Your task to perform on an android device: find snoozed emails in the gmail app Image 0: 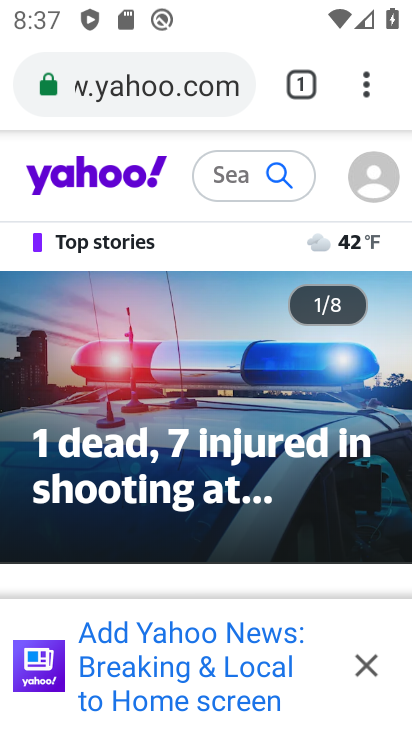
Step 0: press home button
Your task to perform on an android device: find snoozed emails in the gmail app Image 1: 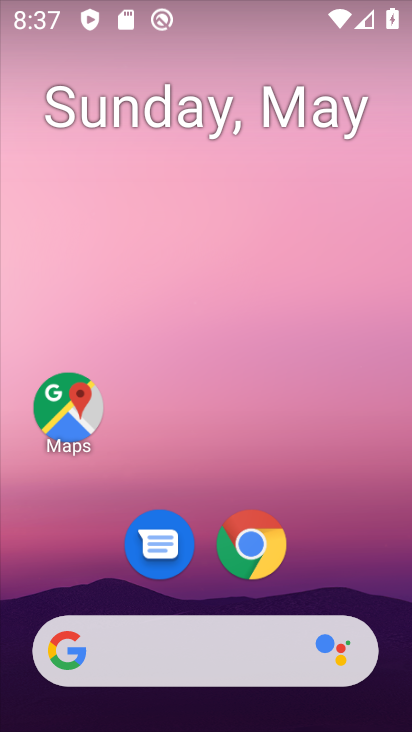
Step 1: drag from (384, 521) to (405, 27)
Your task to perform on an android device: find snoozed emails in the gmail app Image 2: 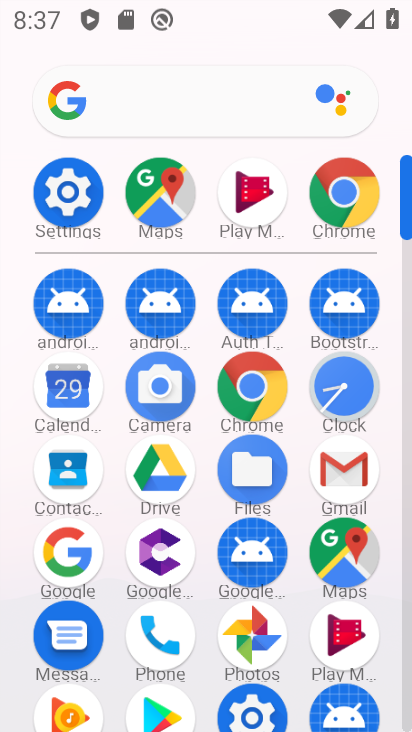
Step 2: click (340, 483)
Your task to perform on an android device: find snoozed emails in the gmail app Image 3: 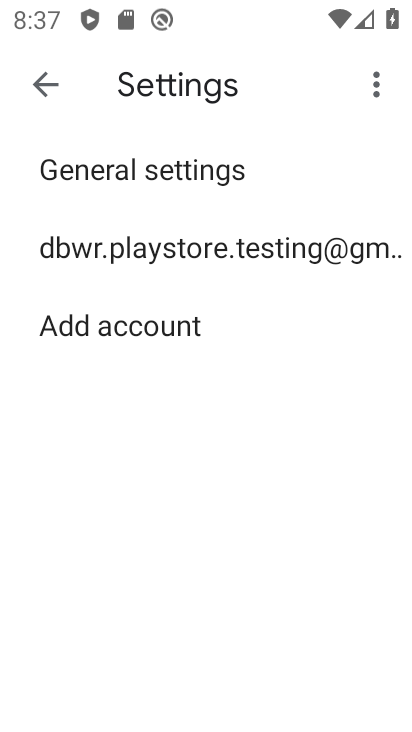
Step 3: click (43, 82)
Your task to perform on an android device: find snoozed emails in the gmail app Image 4: 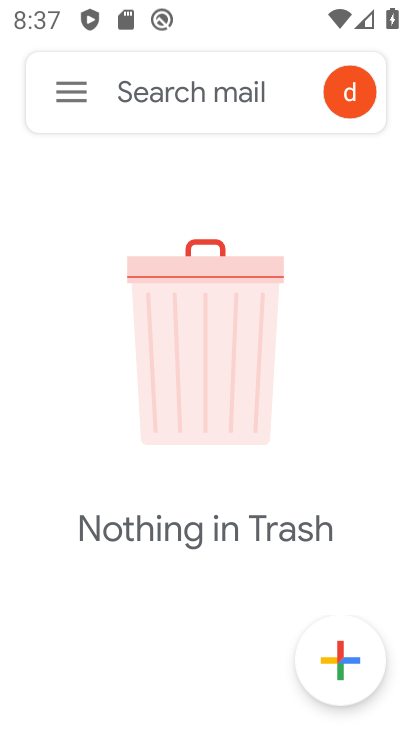
Step 4: click (69, 90)
Your task to perform on an android device: find snoozed emails in the gmail app Image 5: 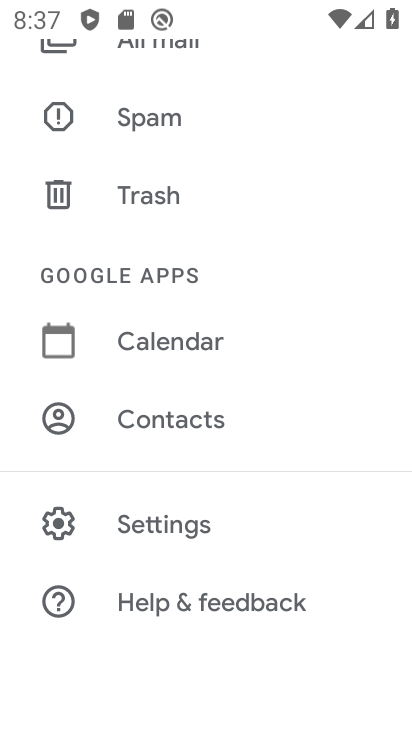
Step 5: drag from (108, 133) to (129, 594)
Your task to perform on an android device: find snoozed emails in the gmail app Image 6: 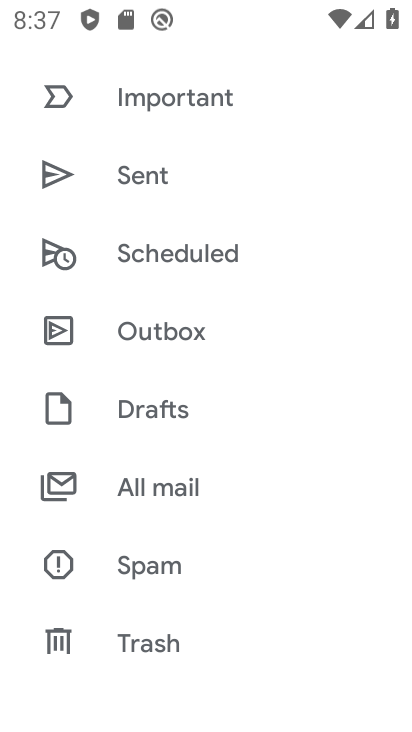
Step 6: drag from (192, 147) to (199, 625)
Your task to perform on an android device: find snoozed emails in the gmail app Image 7: 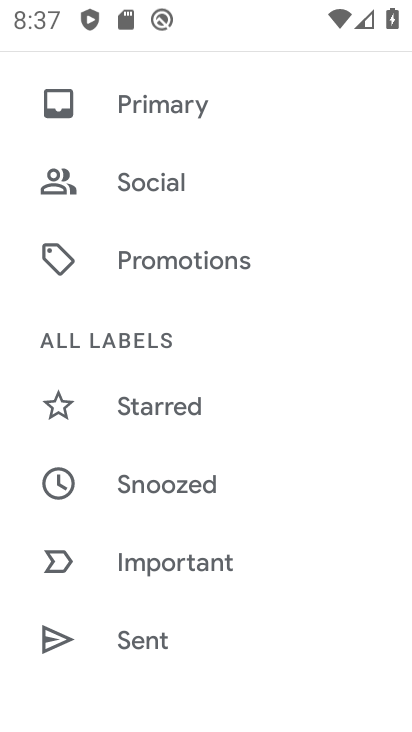
Step 7: drag from (190, 210) to (168, 618)
Your task to perform on an android device: find snoozed emails in the gmail app Image 8: 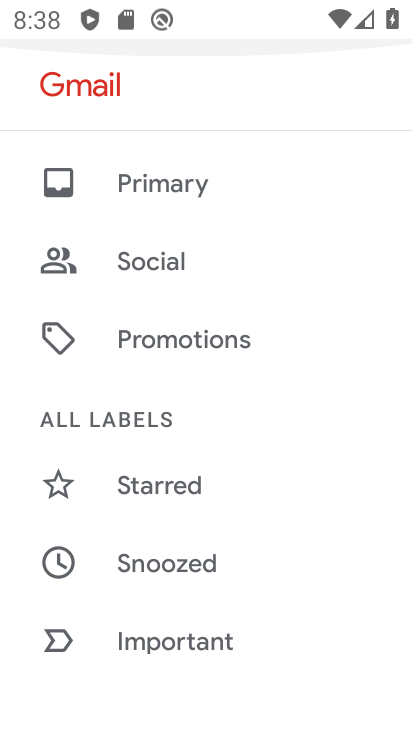
Step 8: drag from (167, 605) to (212, 214)
Your task to perform on an android device: find snoozed emails in the gmail app Image 9: 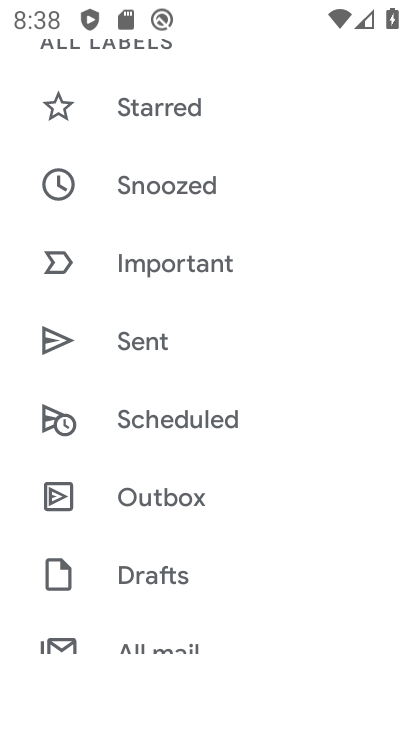
Step 9: click (207, 188)
Your task to perform on an android device: find snoozed emails in the gmail app Image 10: 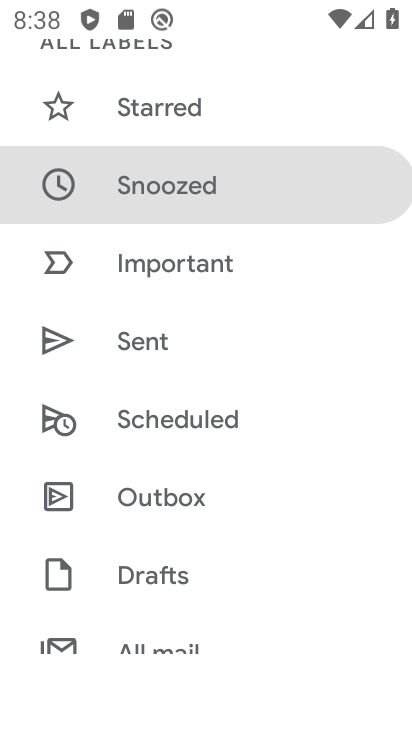
Step 10: click (207, 190)
Your task to perform on an android device: find snoozed emails in the gmail app Image 11: 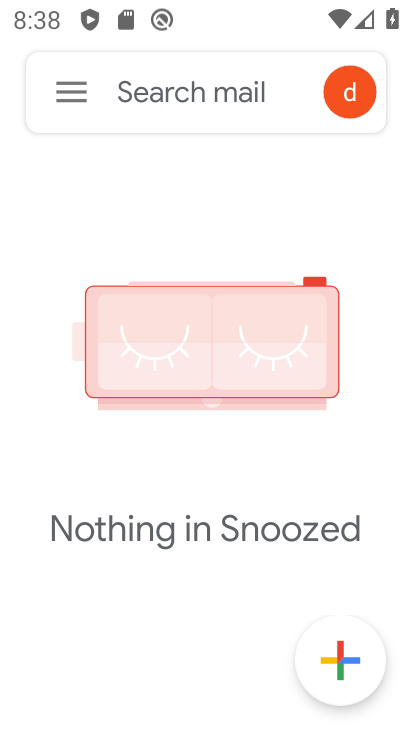
Step 11: task complete